Your task to perform on an android device: turn off wifi Image 0: 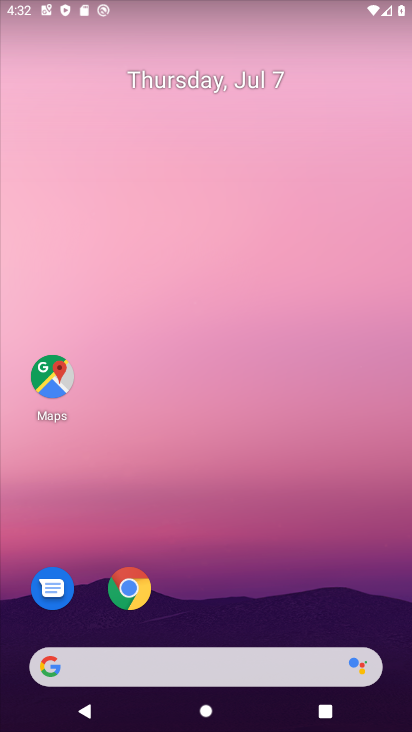
Step 0: drag from (355, 638) to (322, 90)
Your task to perform on an android device: turn off wifi Image 1: 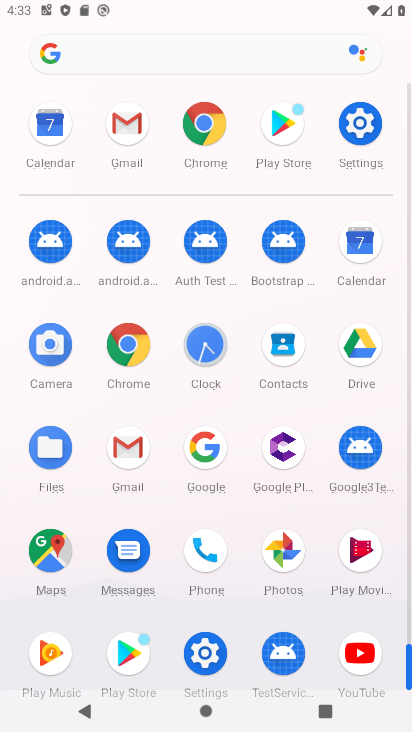
Step 1: click (355, 123)
Your task to perform on an android device: turn off wifi Image 2: 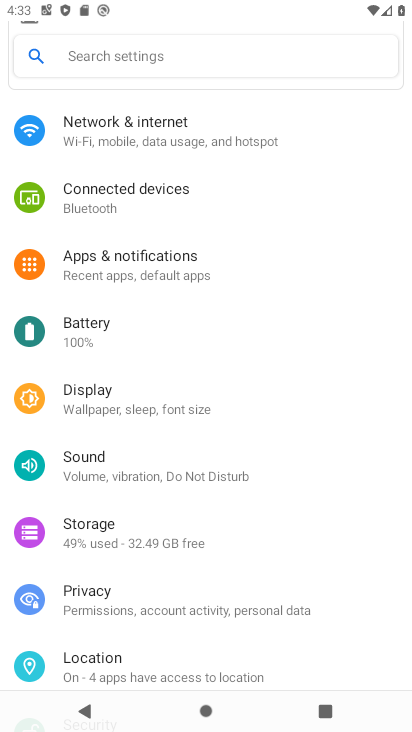
Step 2: click (183, 143)
Your task to perform on an android device: turn off wifi Image 3: 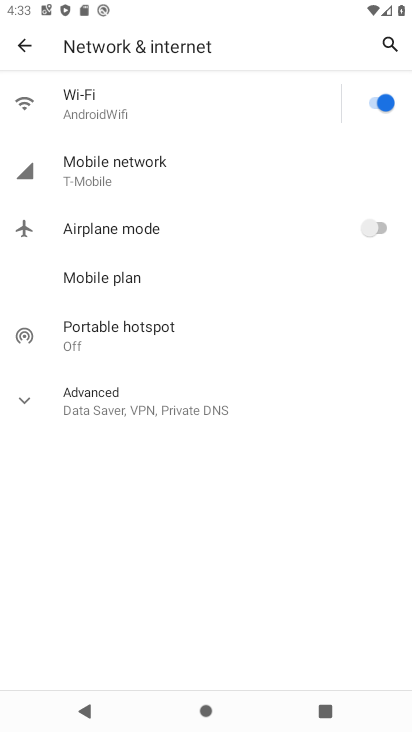
Step 3: click (372, 97)
Your task to perform on an android device: turn off wifi Image 4: 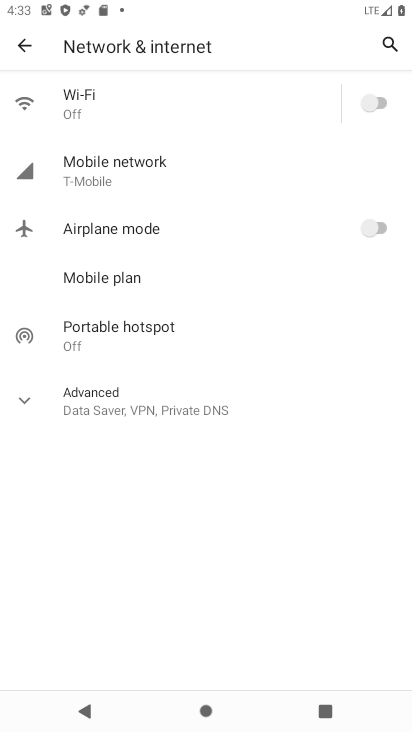
Step 4: task complete